Your task to perform on an android device: turn on wifi Image 0: 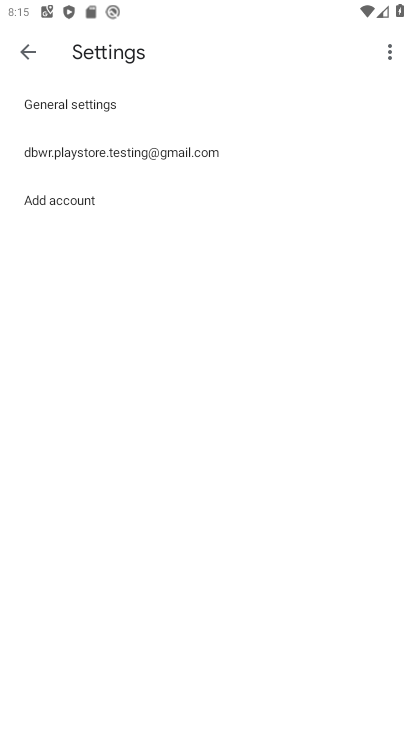
Step 0: press home button
Your task to perform on an android device: turn on wifi Image 1: 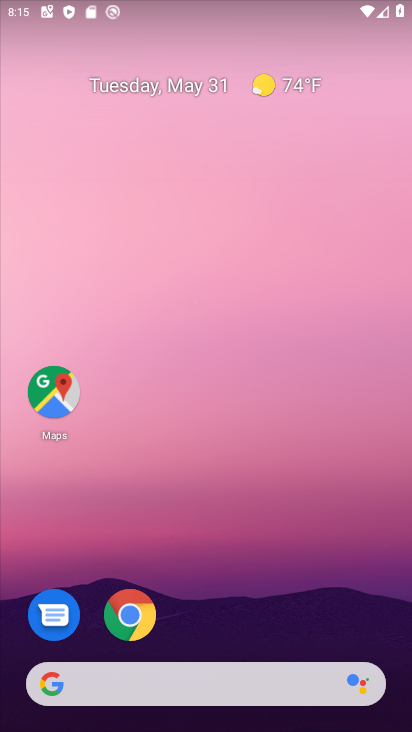
Step 1: drag from (133, 680) to (286, 50)
Your task to perform on an android device: turn on wifi Image 2: 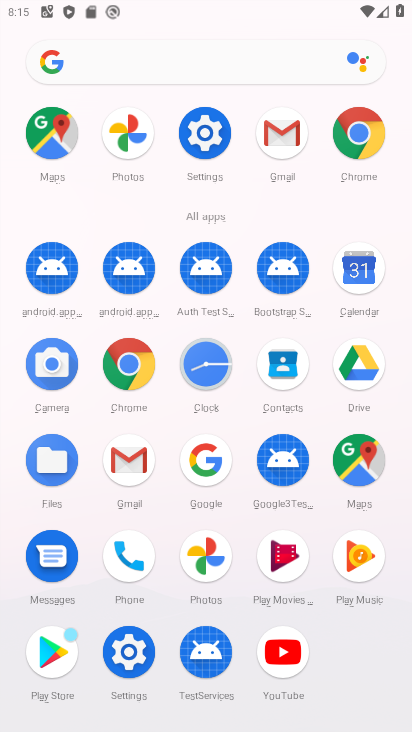
Step 2: click (217, 132)
Your task to perform on an android device: turn on wifi Image 3: 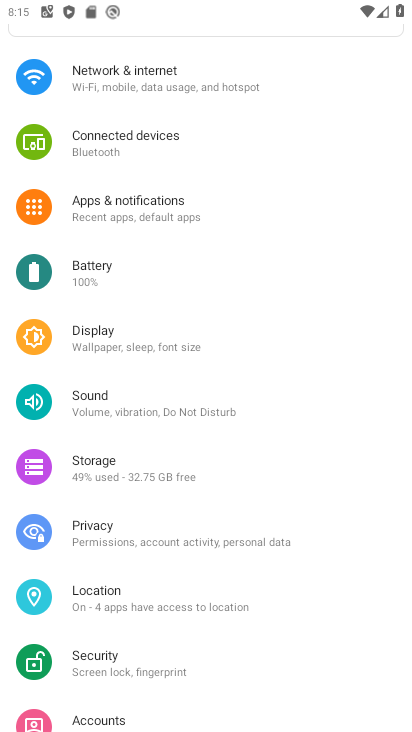
Step 3: click (149, 76)
Your task to perform on an android device: turn on wifi Image 4: 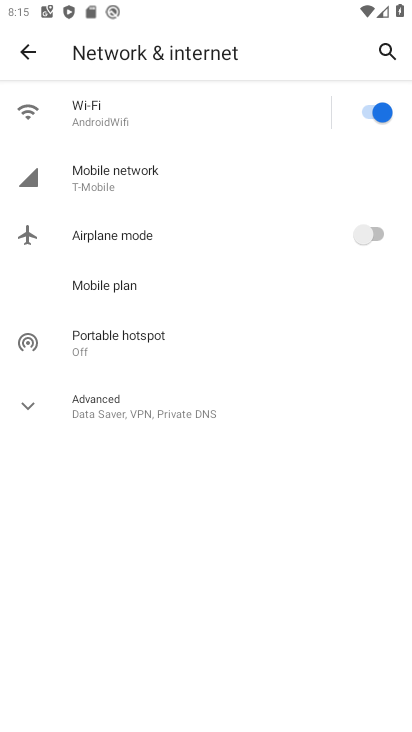
Step 4: task complete